Your task to perform on an android device: Go to battery settings Image 0: 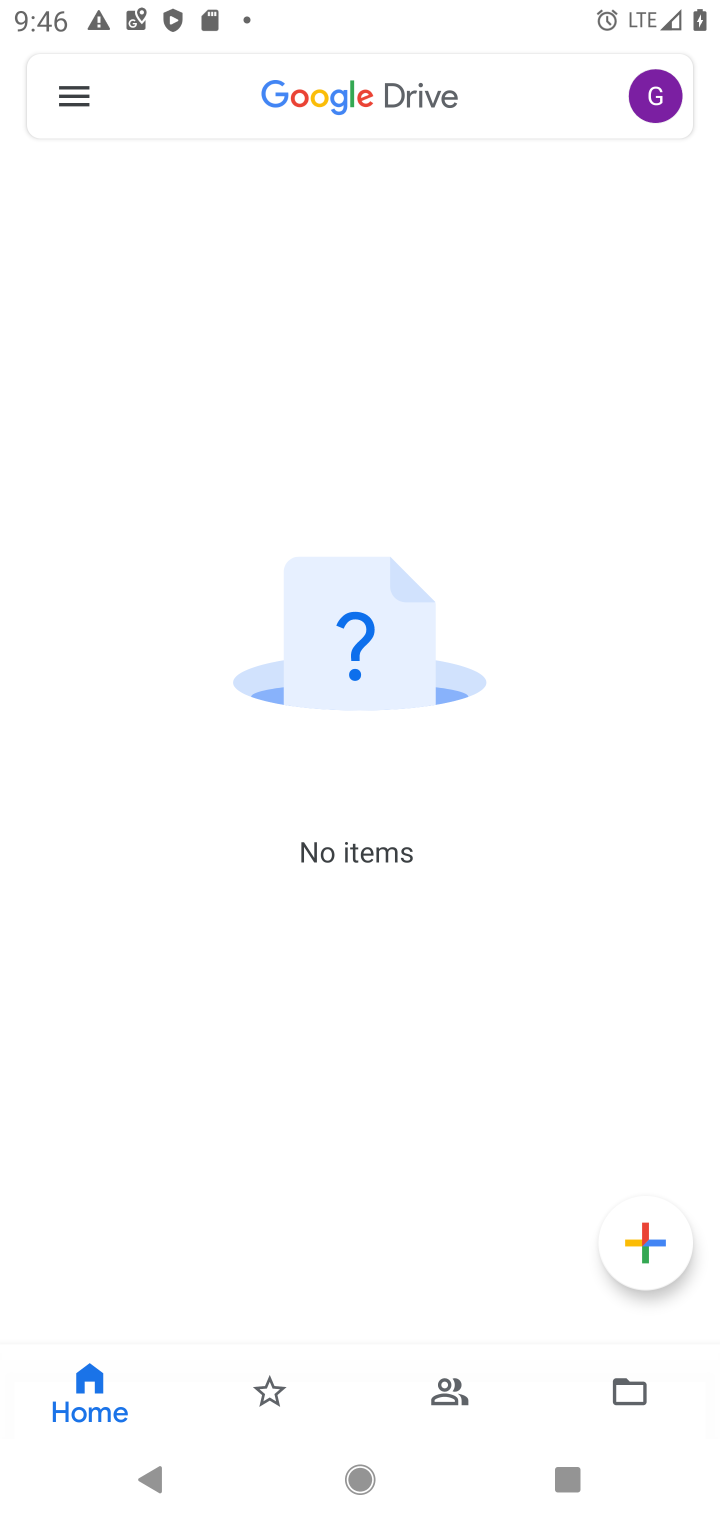
Step 0: press home button
Your task to perform on an android device: Go to battery settings Image 1: 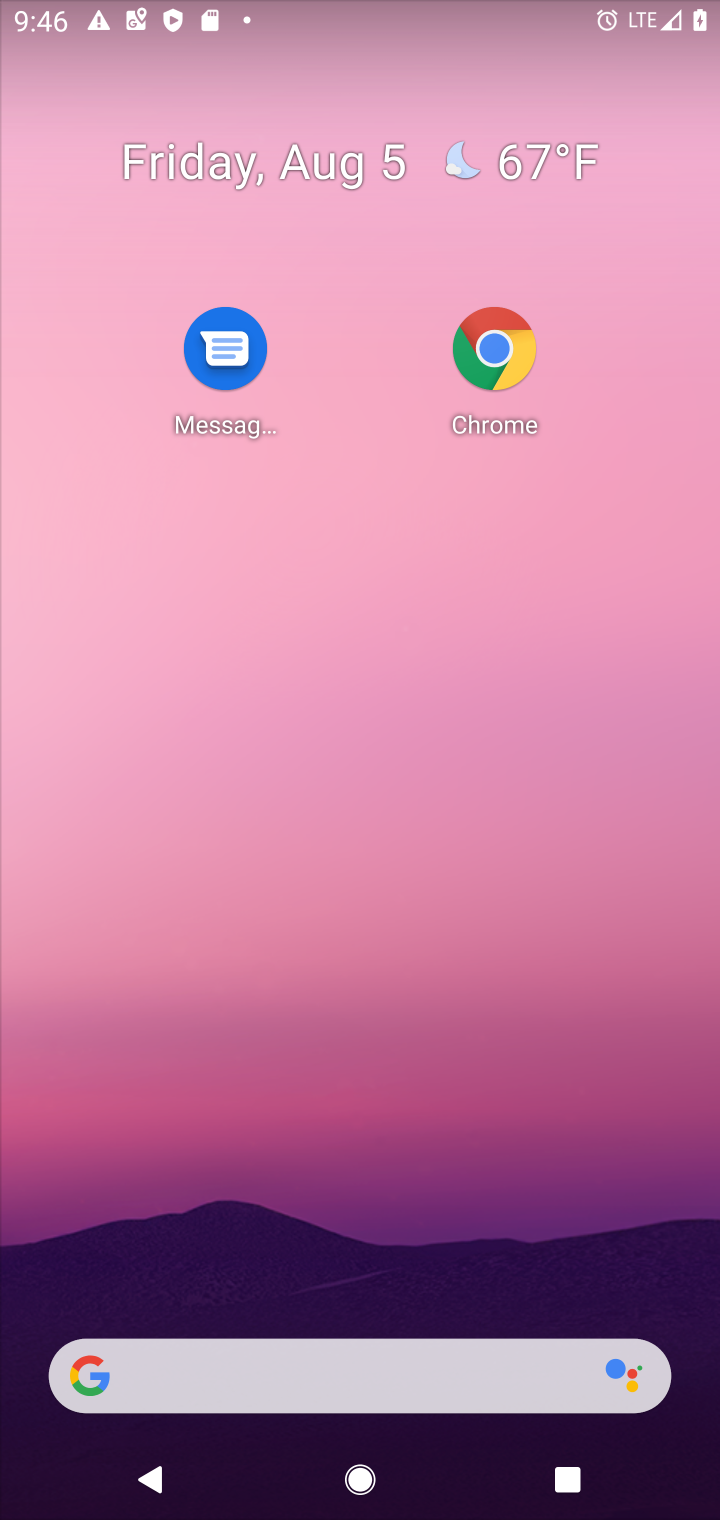
Step 1: drag from (463, 1135) to (316, 381)
Your task to perform on an android device: Go to battery settings Image 2: 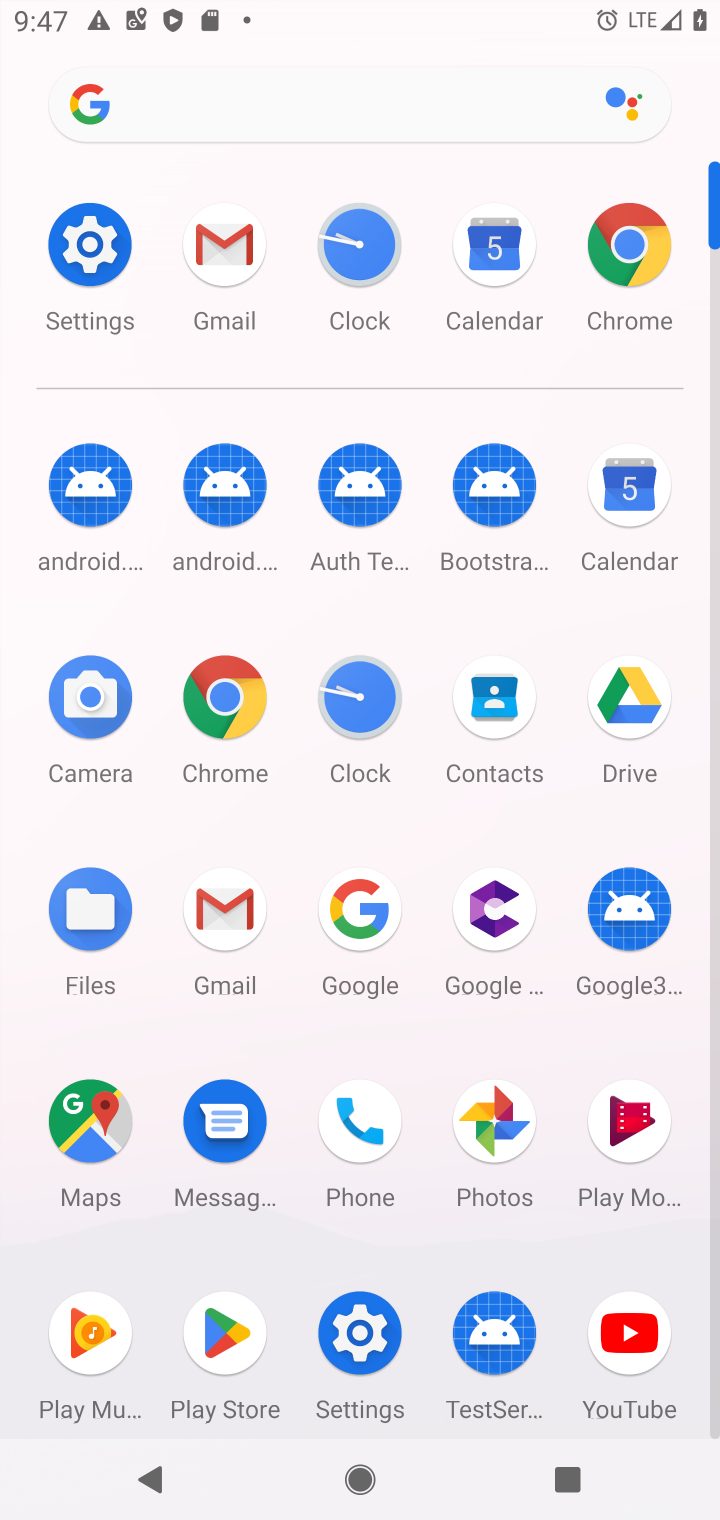
Step 2: click (99, 254)
Your task to perform on an android device: Go to battery settings Image 3: 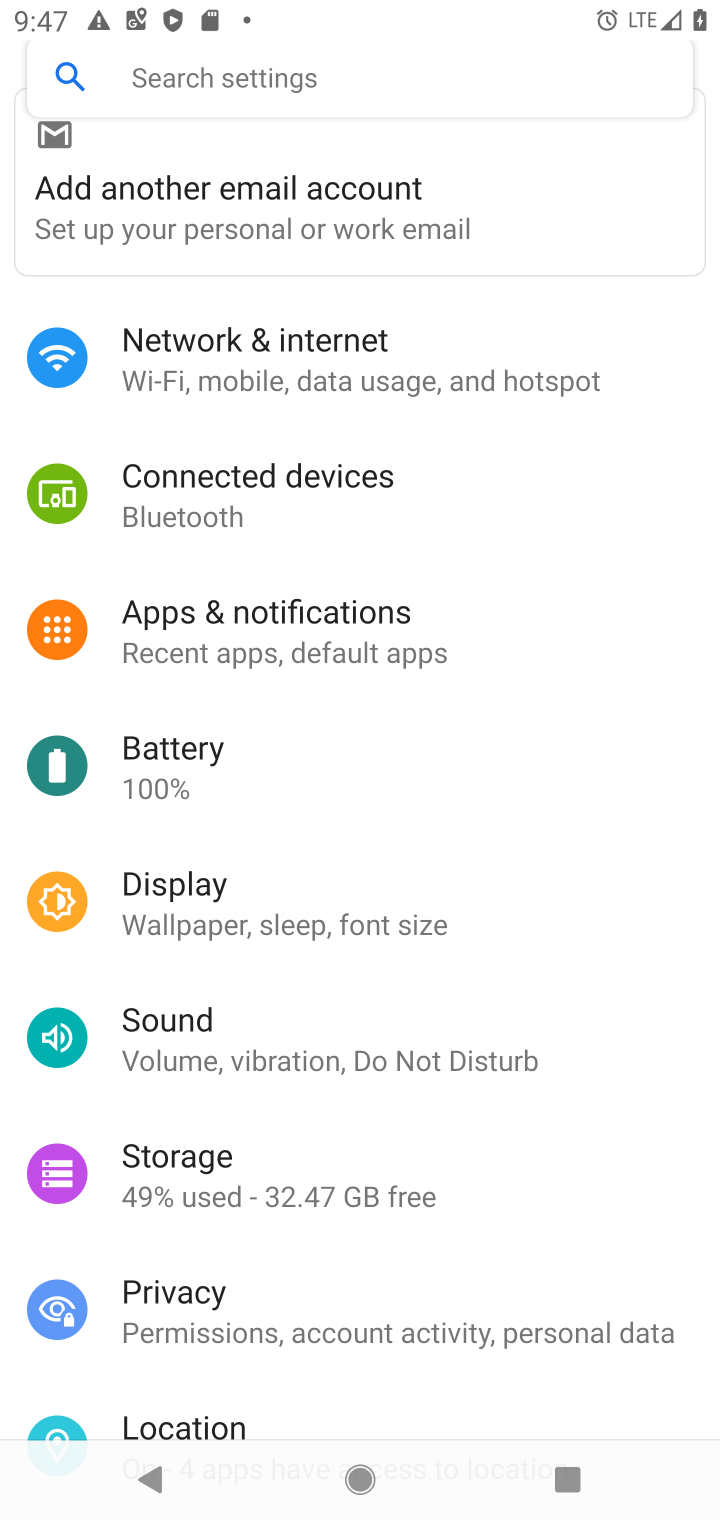
Step 3: click (200, 760)
Your task to perform on an android device: Go to battery settings Image 4: 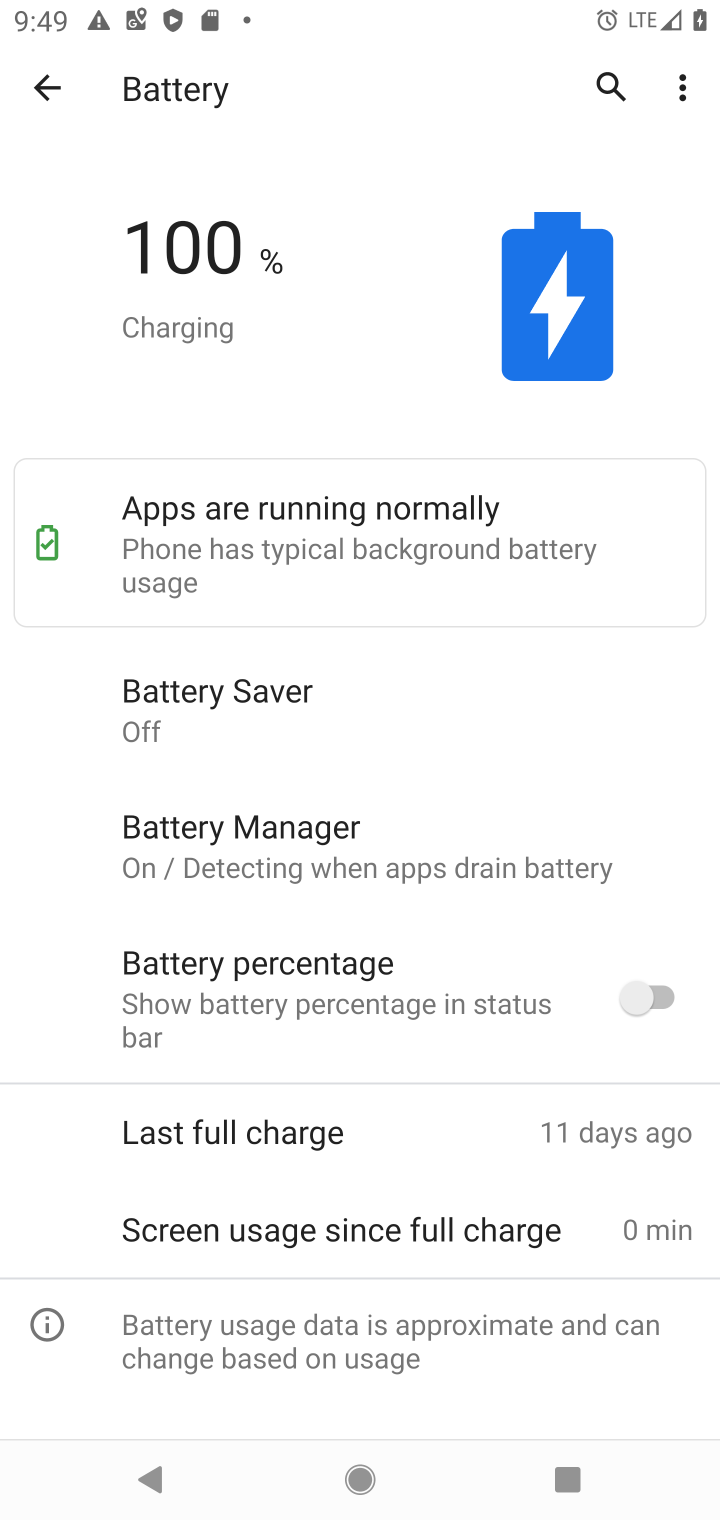
Step 4: task complete